Your task to perform on an android device: Go to CNN.com Image 0: 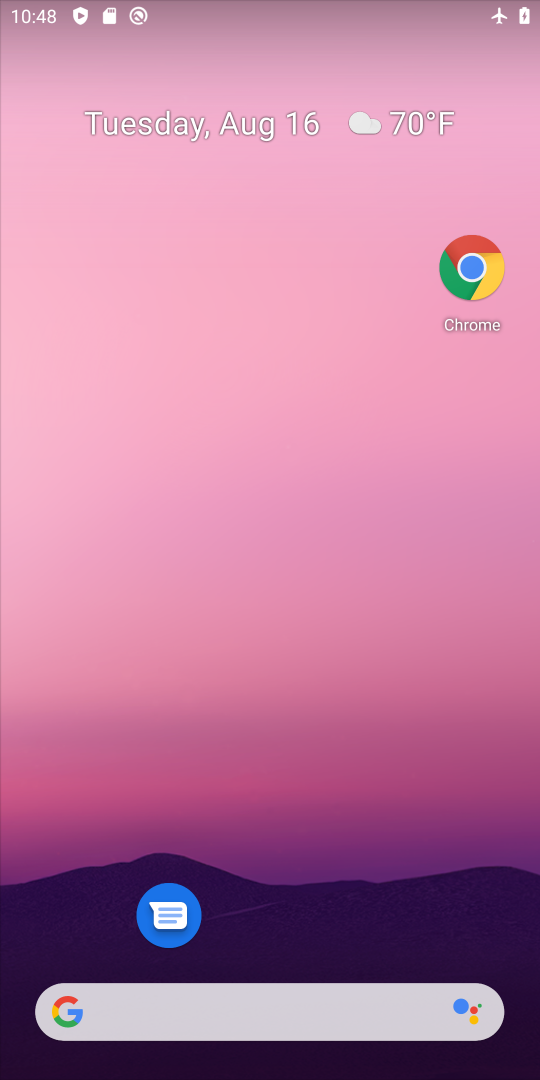
Step 0: click (455, 262)
Your task to perform on an android device: Go to CNN.com Image 1: 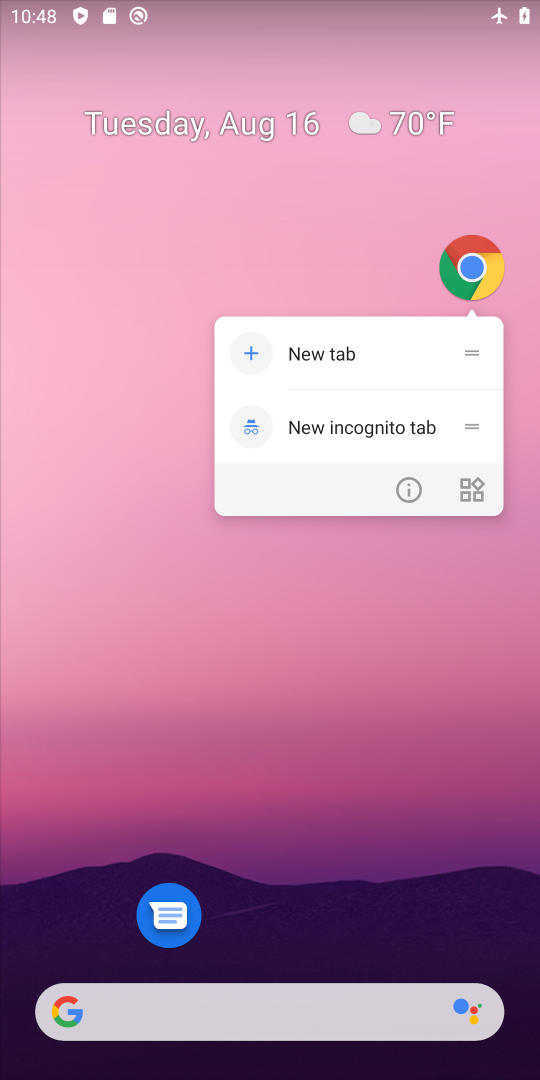
Step 1: click (465, 263)
Your task to perform on an android device: Go to CNN.com Image 2: 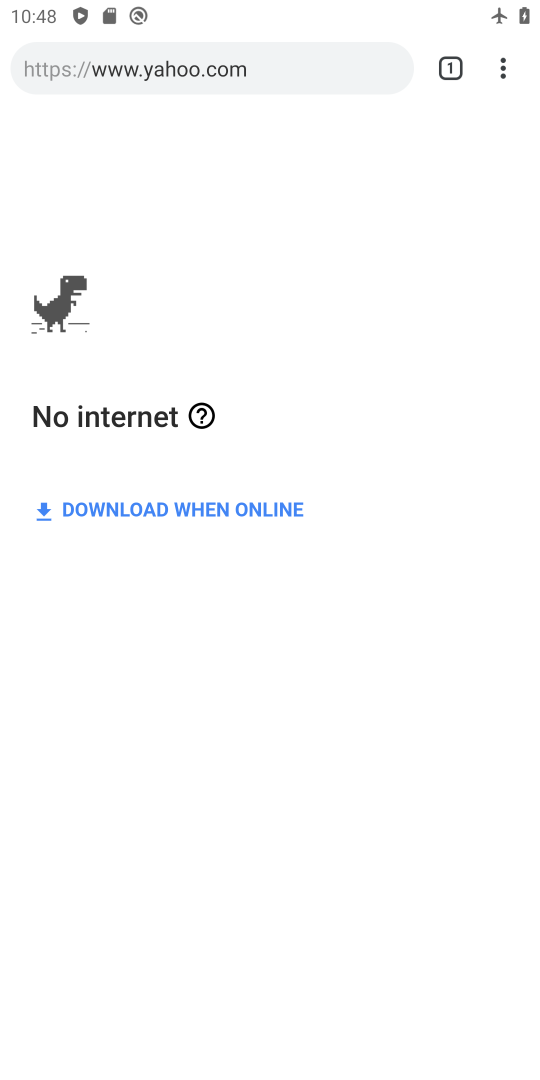
Step 2: click (358, 72)
Your task to perform on an android device: Go to CNN.com Image 3: 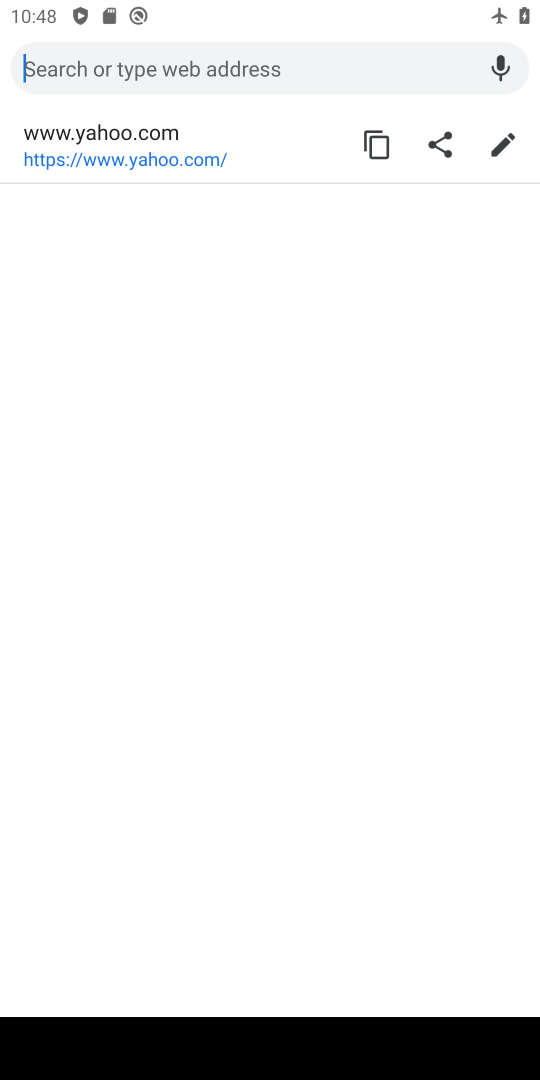
Step 3: type "cnn"
Your task to perform on an android device: Go to CNN.com Image 4: 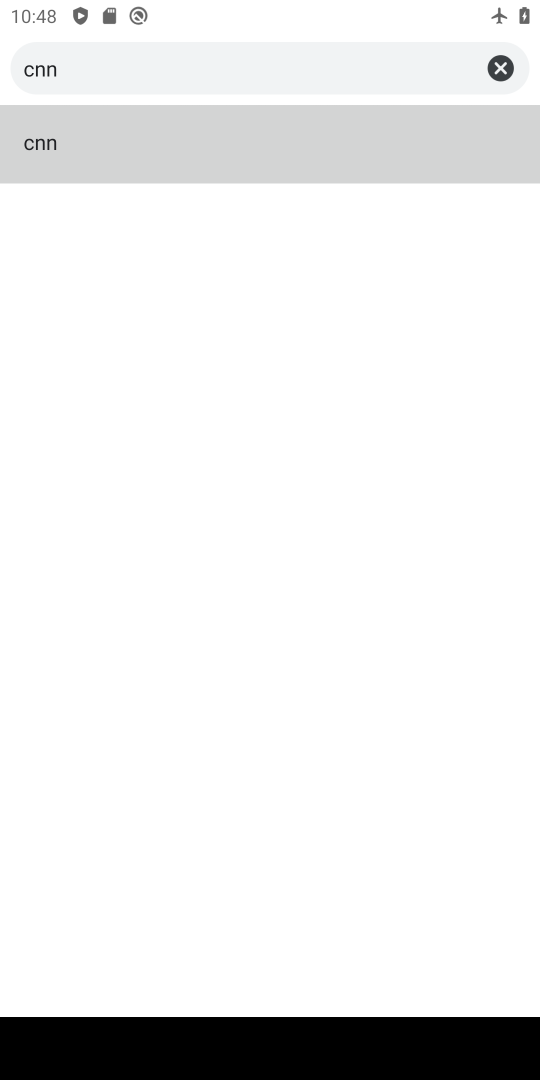
Step 4: click (144, 138)
Your task to perform on an android device: Go to CNN.com Image 5: 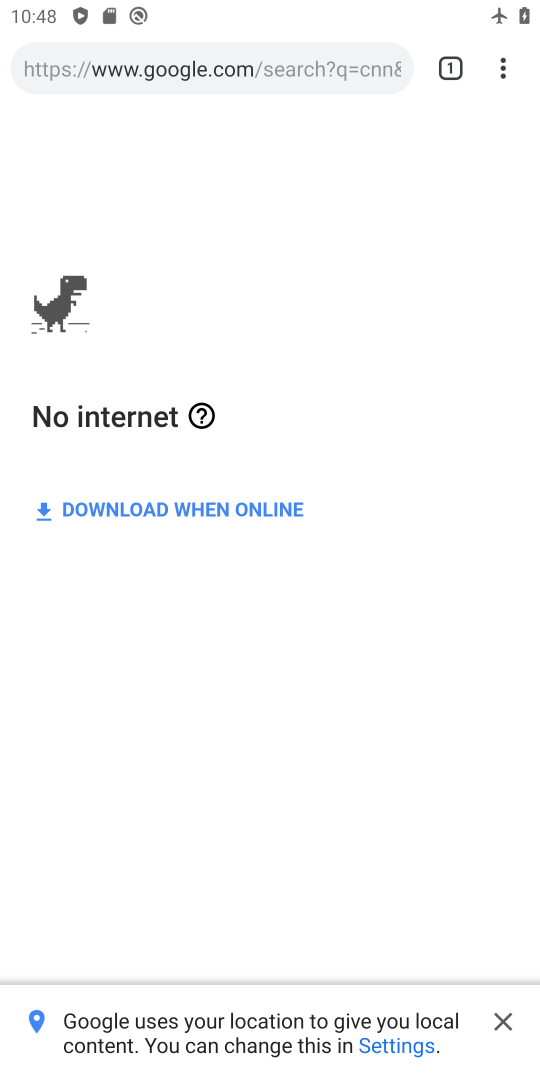
Step 5: task complete